Your task to perform on an android device: turn on notifications settings in the gmail app Image 0: 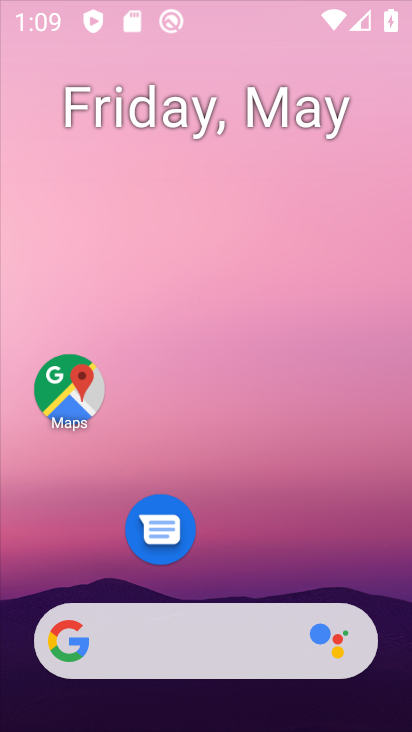
Step 0: drag from (225, 509) to (311, 58)
Your task to perform on an android device: turn on notifications settings in the gmail app Image 1: 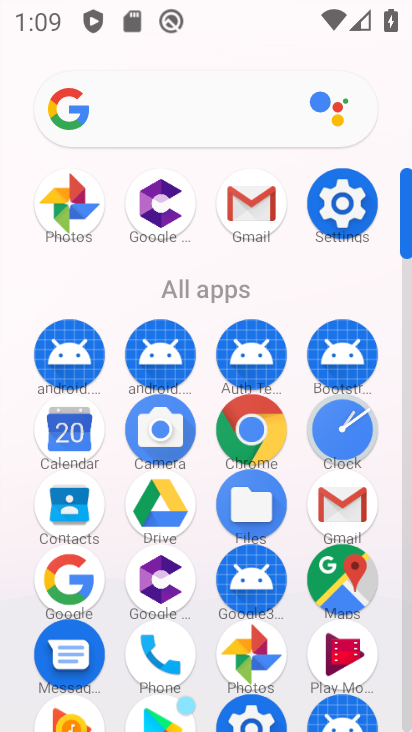
Step 1: click (249, 219)
Your task to perform on an android device: turn on notifications settings in the gmail app Image 2: 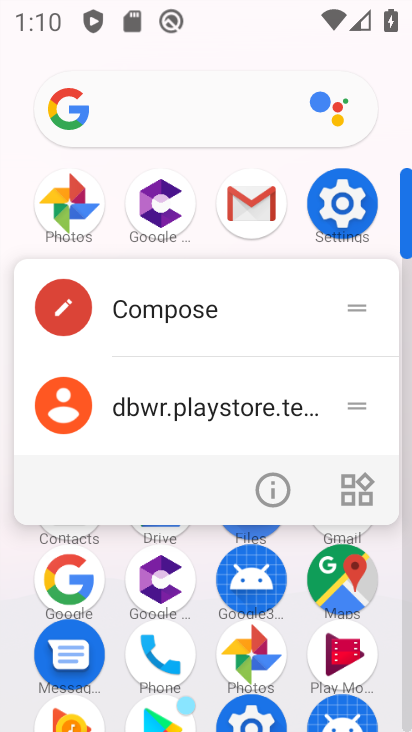
Step 2: click (159, 413)
Your task to perform on an android device: turn on notifications settings in the gmail app Image 3: 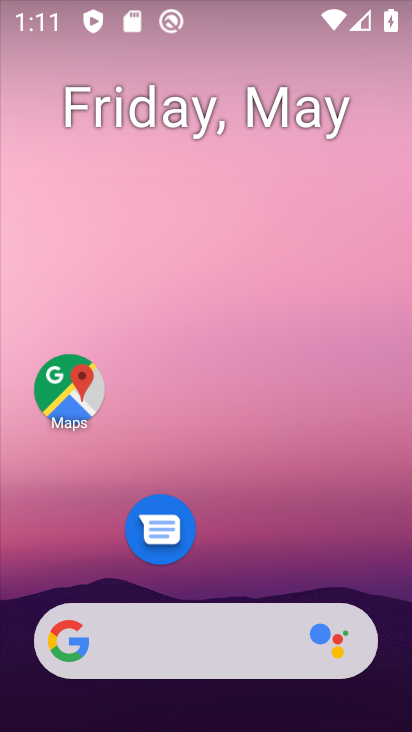
Step 3: drag from (233, 570) to (251, 78)
Your task to perform on an android device: turn on notifications settings in the gmail app Image 4: 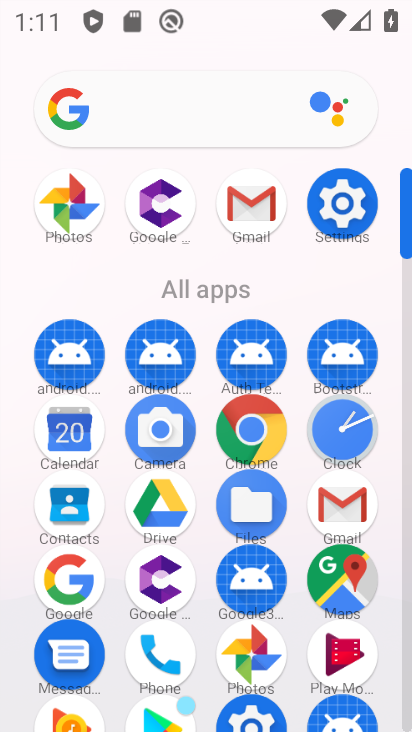
Step 4: click (348, 512)
Your task to perform on an android device: turn on notifications settings in the gmail app Image 5: 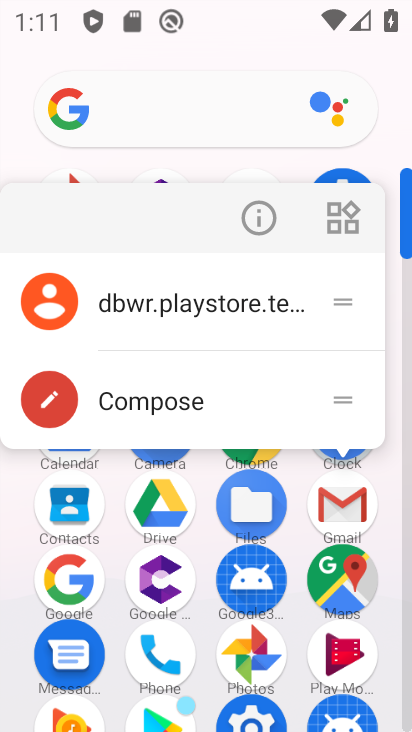
Step 5: click (259, 232)
Your task to perform on an android device: turn on notifications settings in the gmail app Image 6: 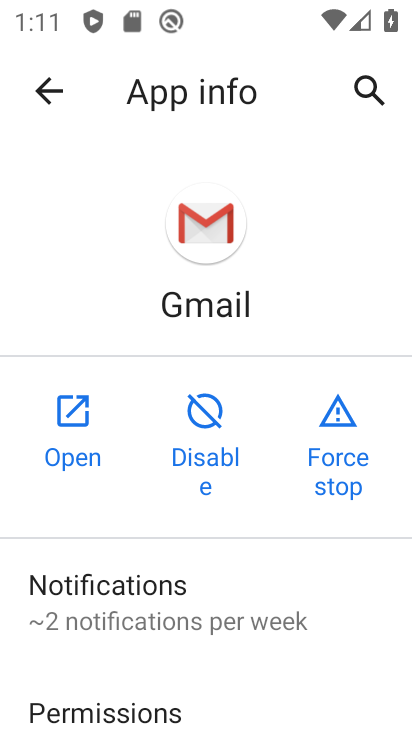
Step 6: click (78, 392)
Your task to perform on an android device: turn on notifications settings in the gmail app Image 7: 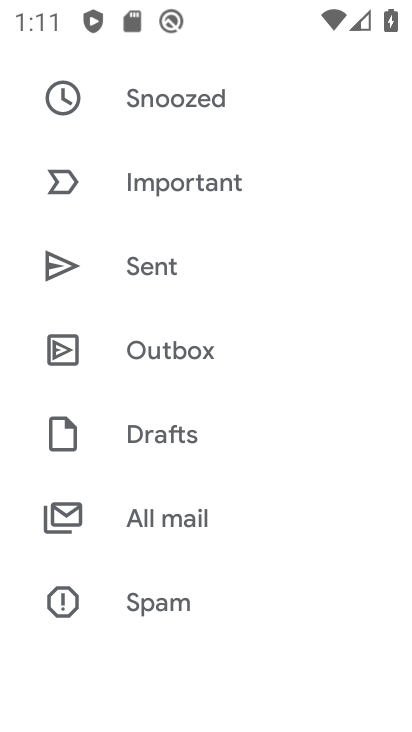
Step 7: drag from (234, 543) to (291, 164)
Your task to perform on an android device: turn on notifications settings in the gmail app Image 8: 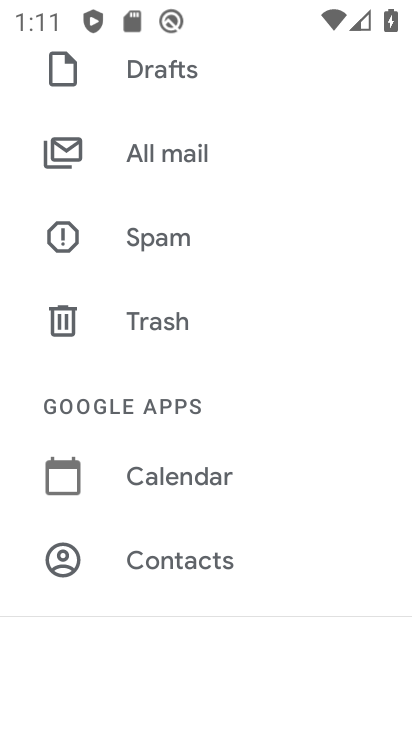
Step 8: drag from (211, 533) to (265, 225)
Your task to perform on an android device: turn on notifications settings in the gmail app Image 9: 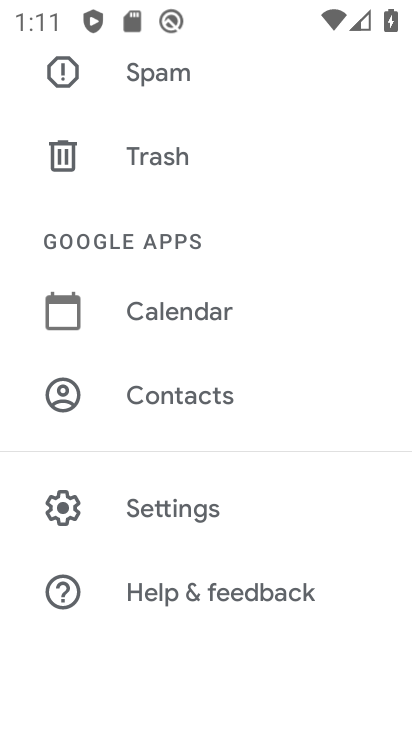
Step 9: click (168, 518)
Your task to perform on an android device: turn on notifications settings in the gmail app Image 10: 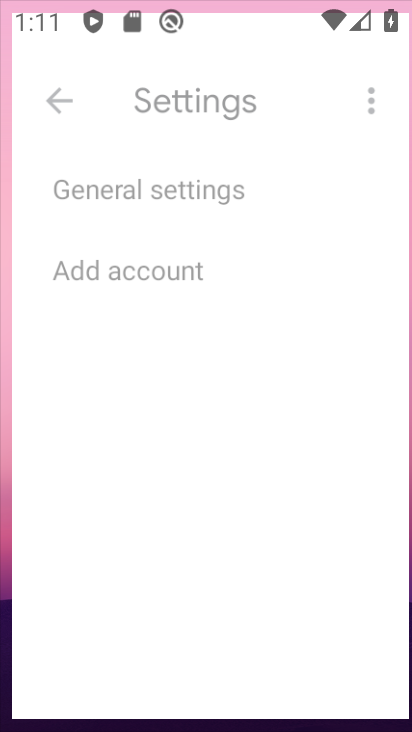
Step 10: drag from (172, 502) to (235, 168)
Your task to perform on an android device: turn on notifications settings in the gmail app Image 11: 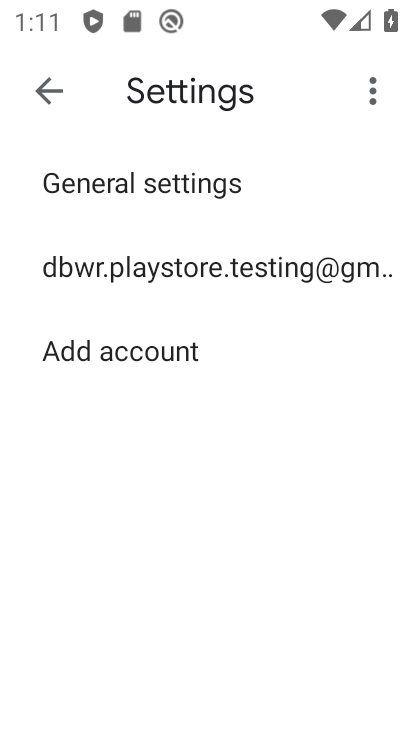
Step 11: click (152, 258)
Your task to perform on an android device: turn on notifications settings in the gmail app Image 12: 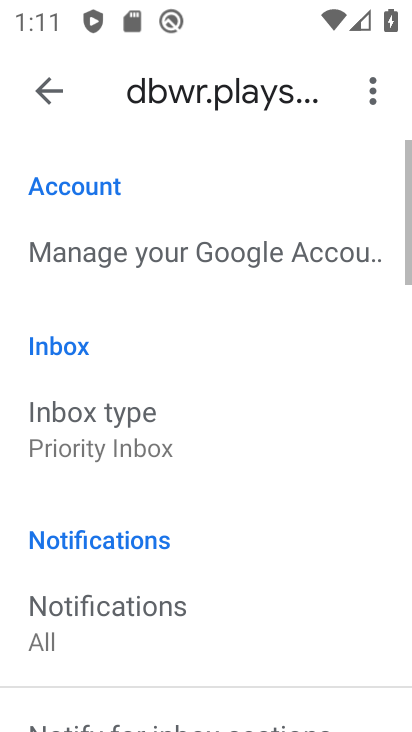
Step 12: drag from (200, 454) to (262, 193)
Your task to perform on an android device: turn on notifications settings in the gmail app Image 13: 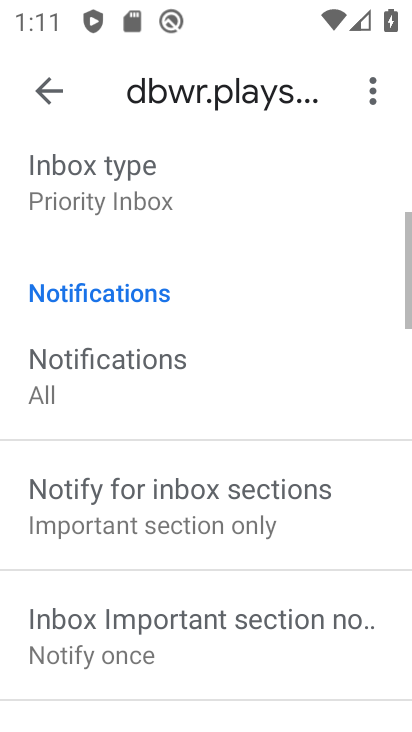
Step 13: drag from (157, 567) to (231, 240)
Your task to perform on an android device: turn on notifications settings in the gmail app Image 14: 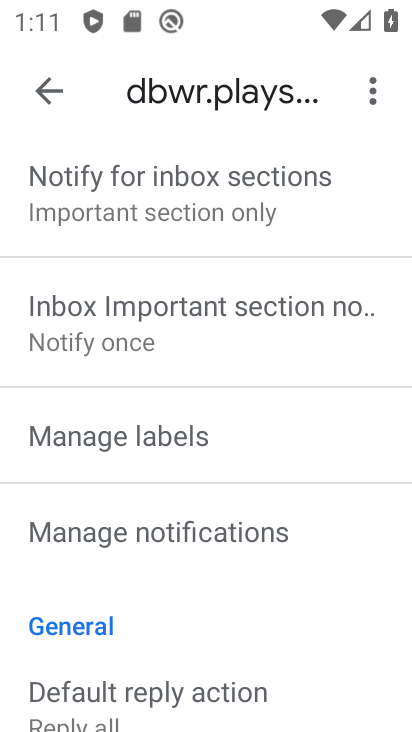
Step 14: click (148, 529)
Your task to perform on an android device: turn on notifications settings in the gmail app Image 15: 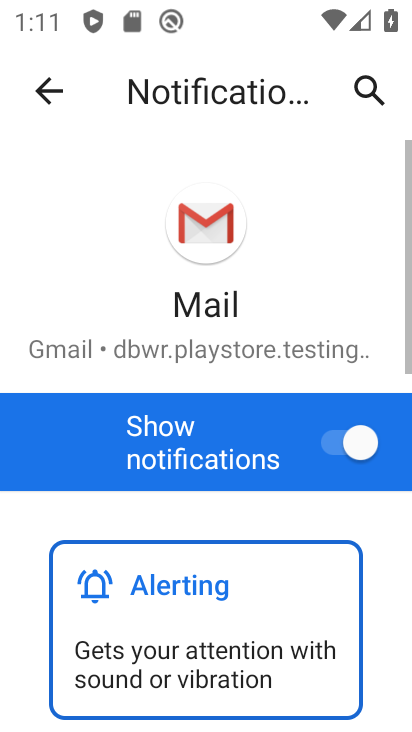
Step 15: task complete